Your task to perform on an android device: Search for Italian restaurants on Maps Image 0: 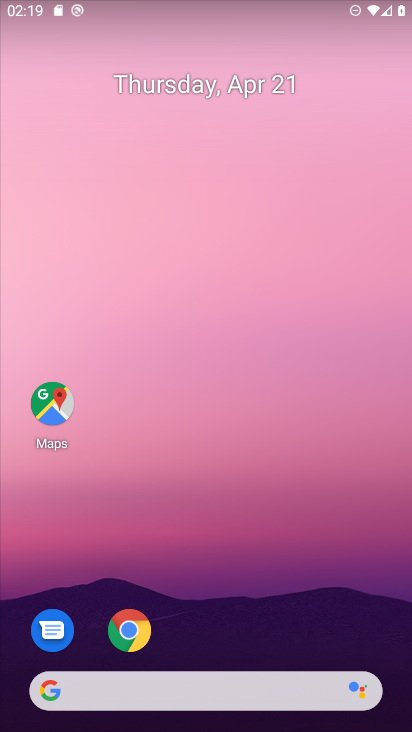
Step 0: click (47, 423)
Your task to perform on an android device: Search for Italian restaurants on Maps Image 1: 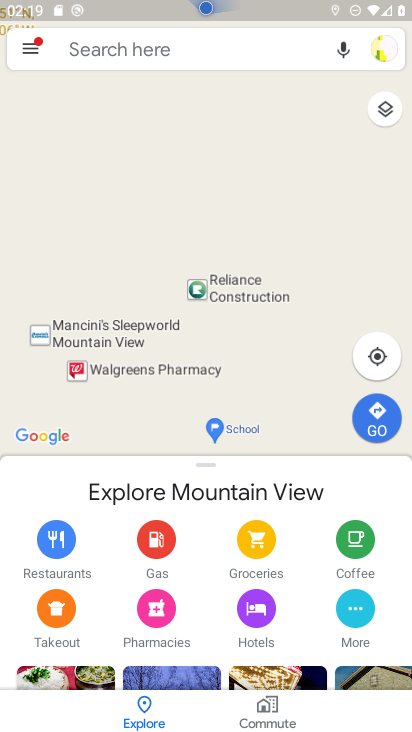
Step 1: click (247, 56)
Your task to perform on an android device: Search for Italian restaurants on Maps Image 2: 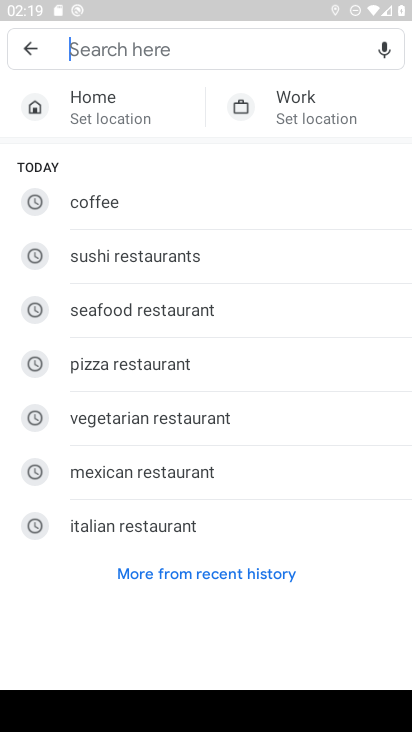
Step 2: click (148, 531)
Your task to perform on an android device: Search for Italian restaurants on Maps Image 3: 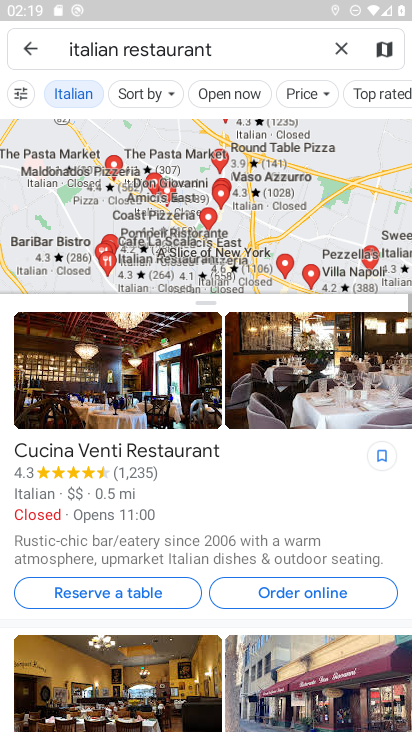
Step 3: task complete